Your task to perform on an android device: Is it going to rain today? Image 0: 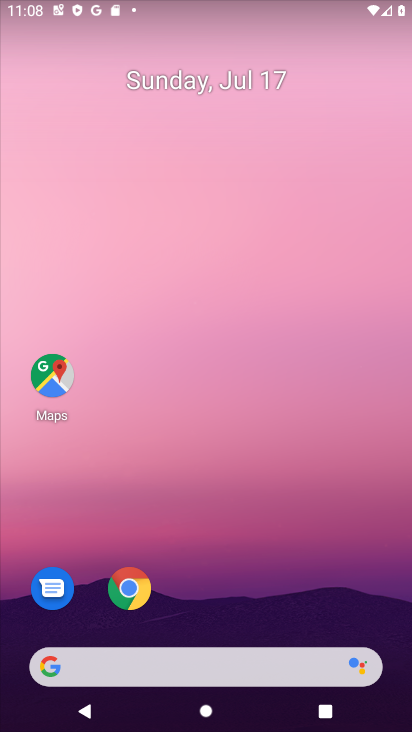
Step 0: press home button
Your task to perform on an android device: Is it going to rain today? Image 1: 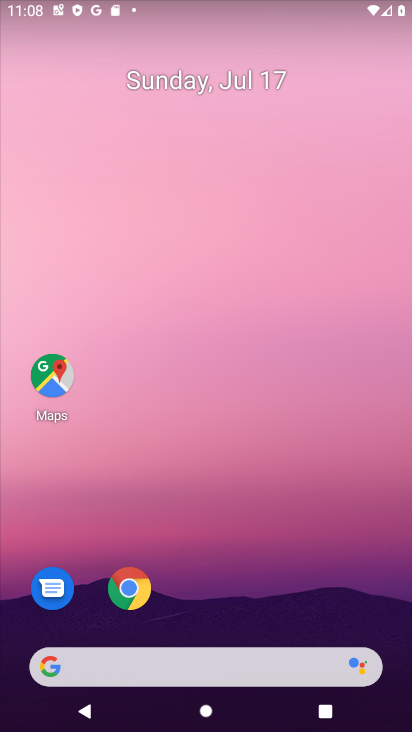
Step 1: click (266, 65)
Your task to perform on an android device: Is it going to rain today? Image 2: 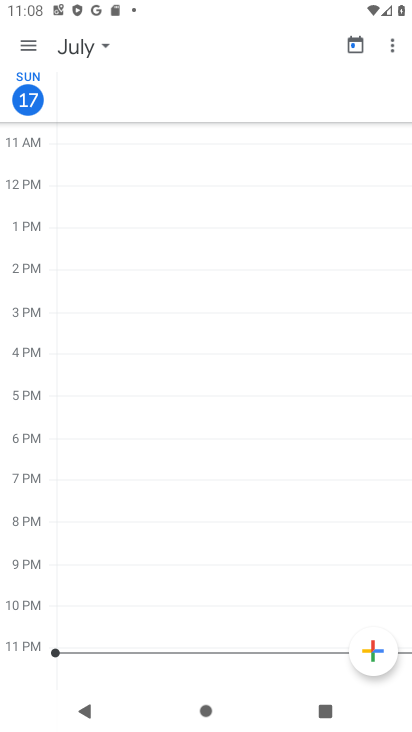
Step 2: press home button
Your task to perform on an android device: Is it going to rain today? Image 3: 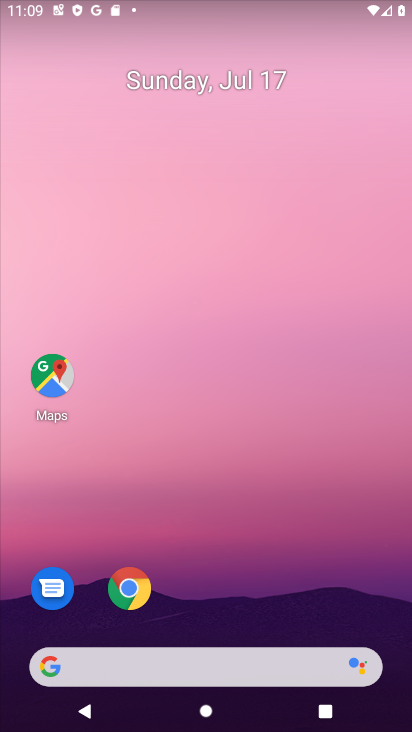
Step 3: click (144, 665)
Your task to perform on an android device: Is it going to rain today? Image 4: 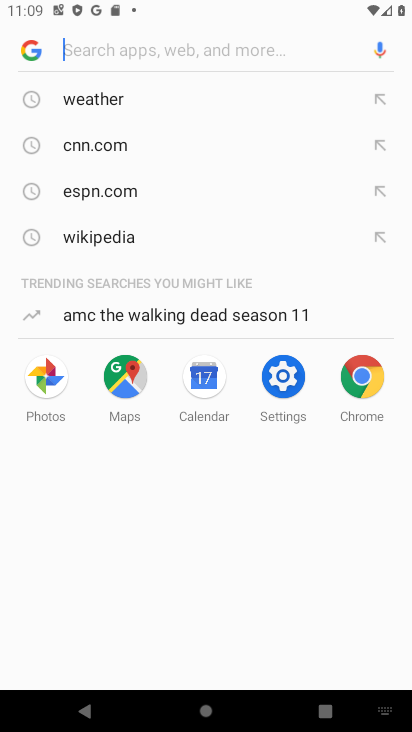
Step 4: click (131, 97)
Your task to perform on an android device: Is it going to rain today? Image 5: 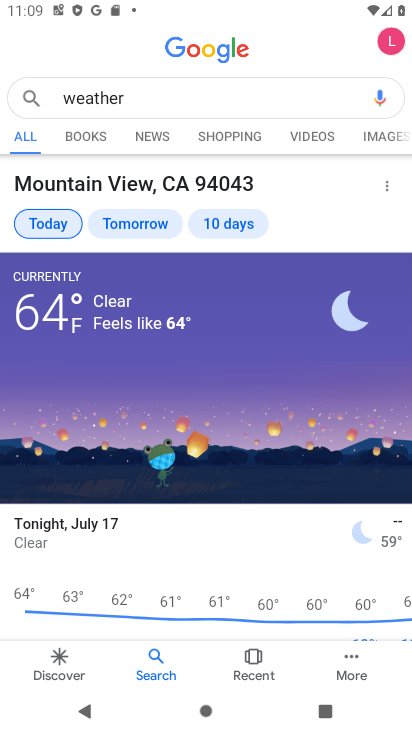
Step 5: task complete